Your task to perform on an android device: snooze an email in the gmail app Image 0: 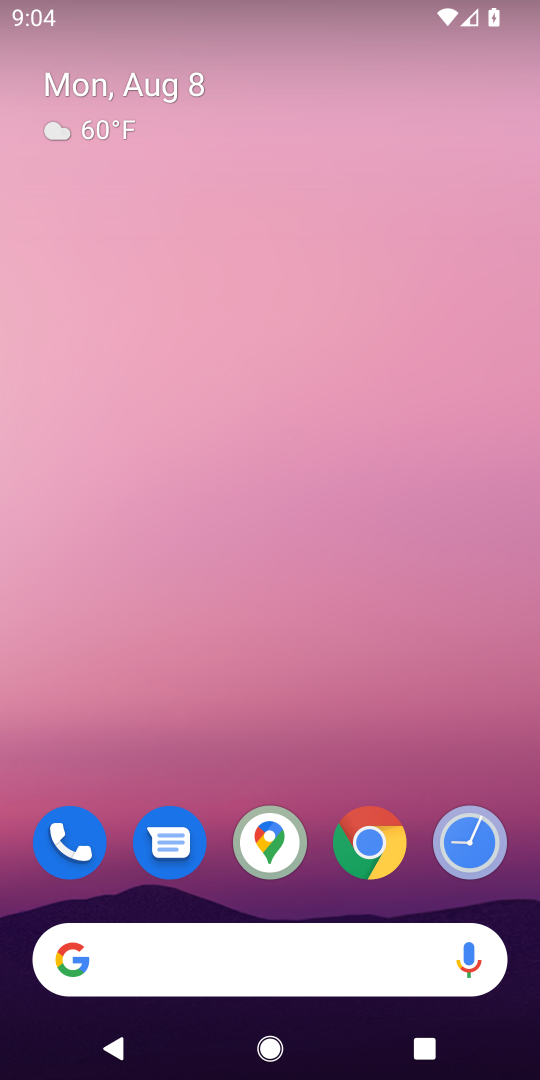
Step 0: drag from (362, 739) to (284, 235)
Your task to perform on an android device: snooze an email in the gmail app Image 1: 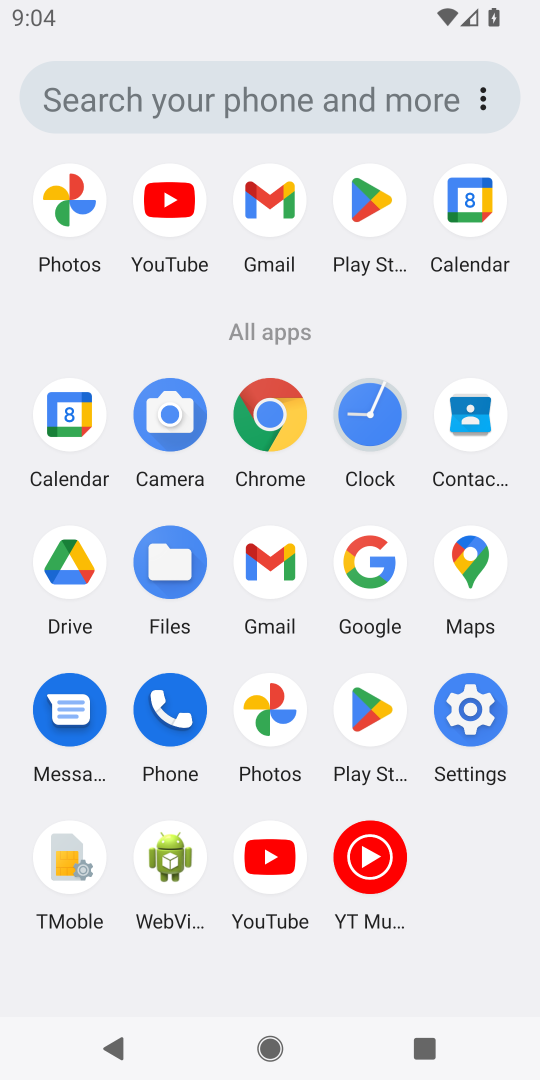
Step 1: click (281, 565)
Your task to perform on an android device: snooze an email in the gmail app Image 2: 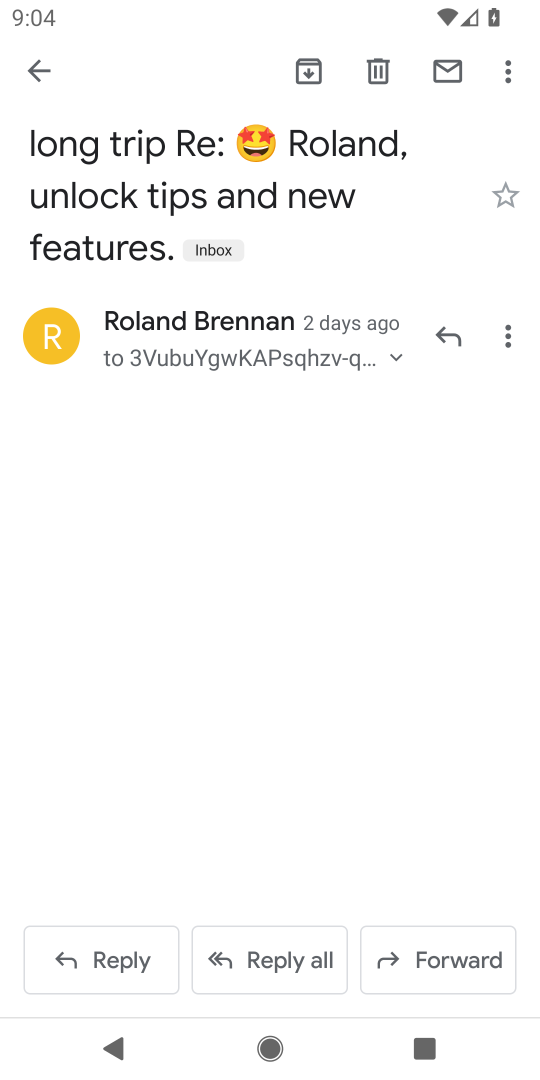
Step 2: click (517, 74)
Your task to perform on an android device: snooze an email in the gmail app Image 3: 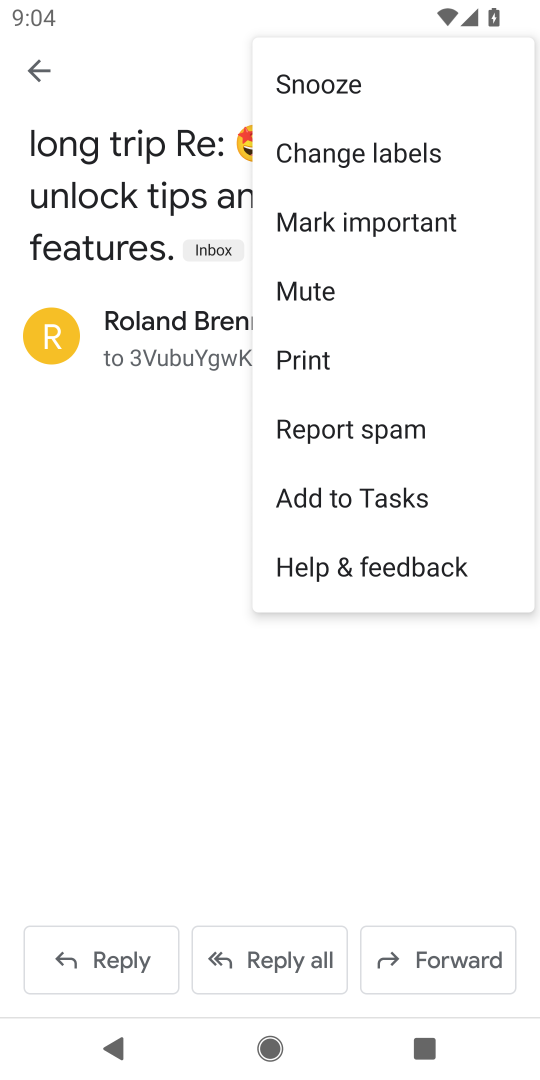
Step 3: click (500, 59)
Your task to perform on an android device: snooze an email in the gmail app Image 4: 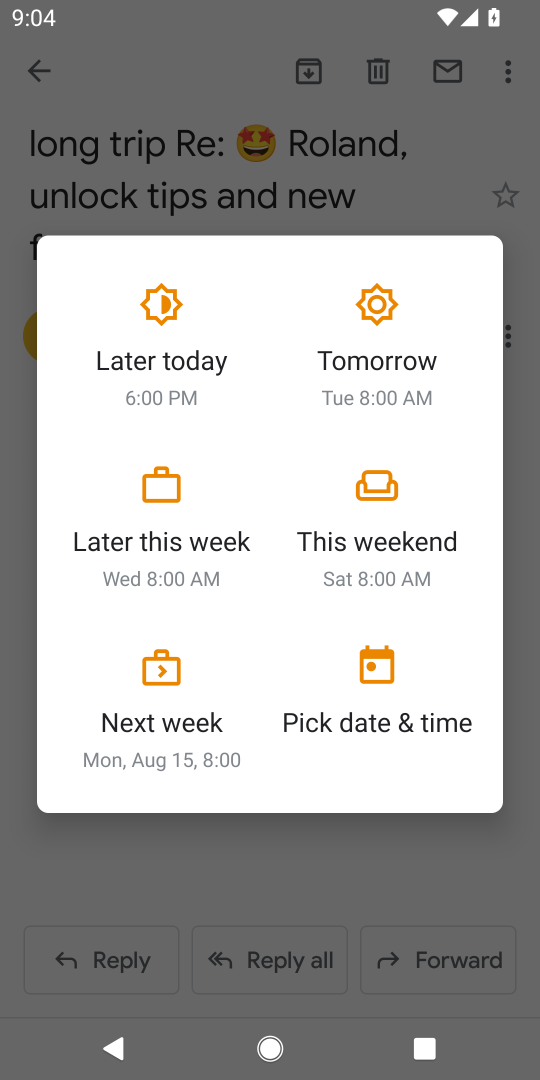
Step 4: click (120, 374)
Your task to perform on an android device: snooze an email in the gmail app Image 5: 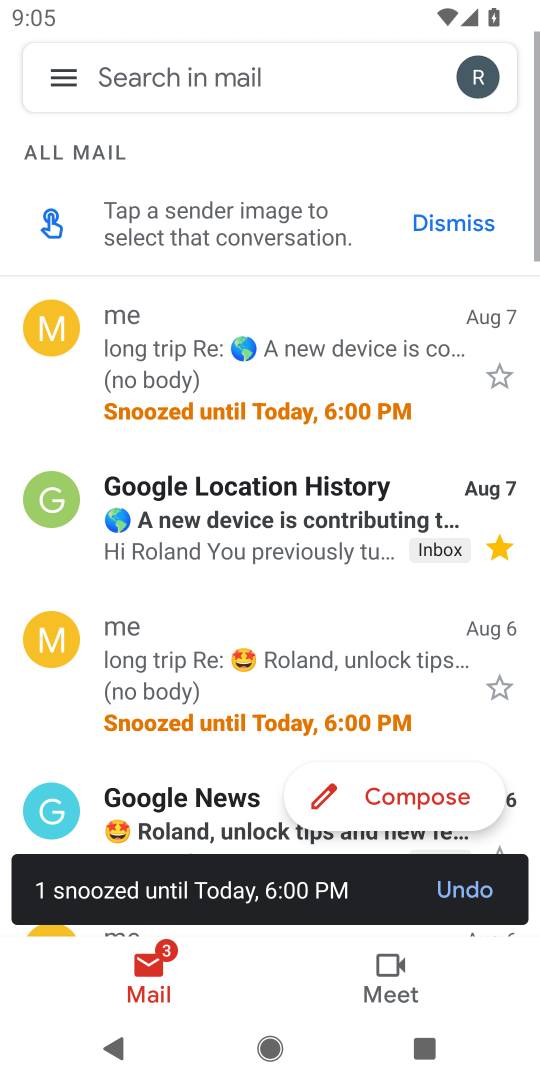
Step 5: task complete